Your task to perform on an android device: manage bookmarks in the chrome app Image 0: 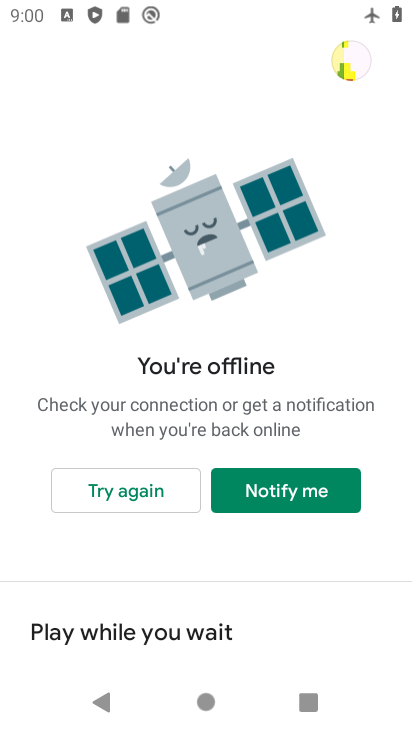
Step 0: press home button
Your task to perform on an android device: manage bookmarks in the chrome app Image 1: 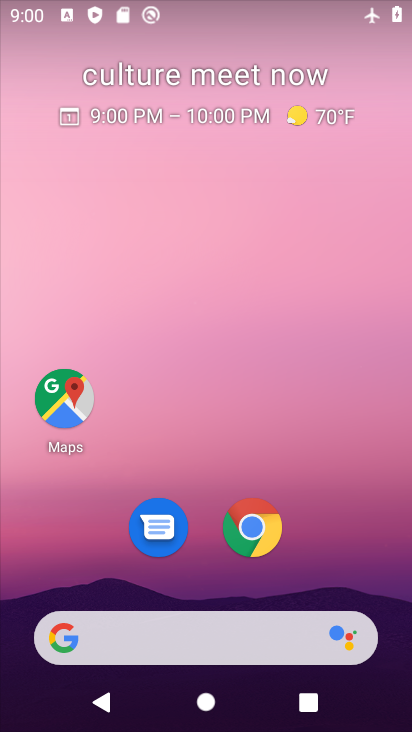
Step 1: click (266, 541)
Your task to perform on an android device: manage bookmarks in the chrome app Image 2: 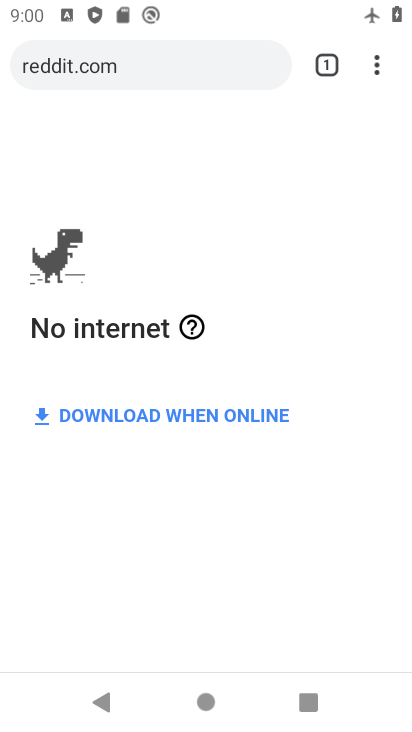
Step 2: click (387, 63)
Your task to perform on an android device: manage bookmarks in the chrome app Image 3: 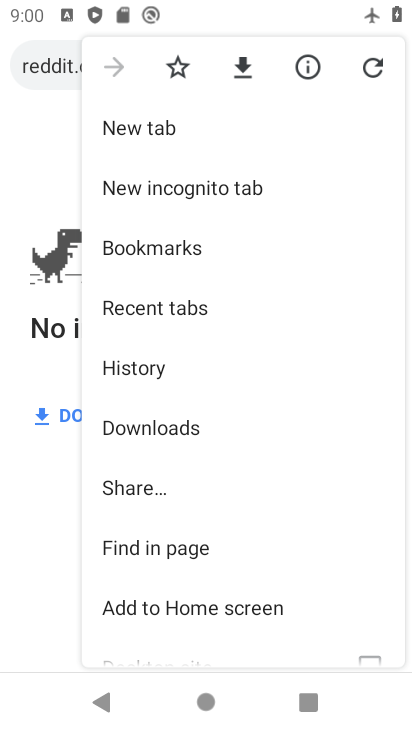
Step 3: click (174, 249)
Your task to perform on an android device: manage bookmarks in the chrome app Image 4: 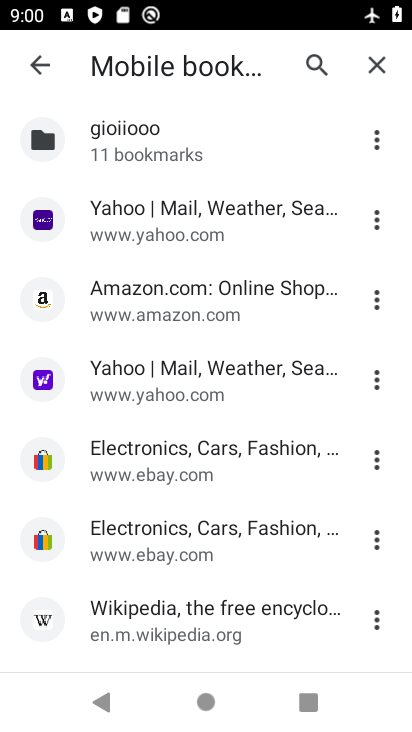
Step 4: task complete